Your task to perform on an android device: turn off data saver in the chrome app Image 0: 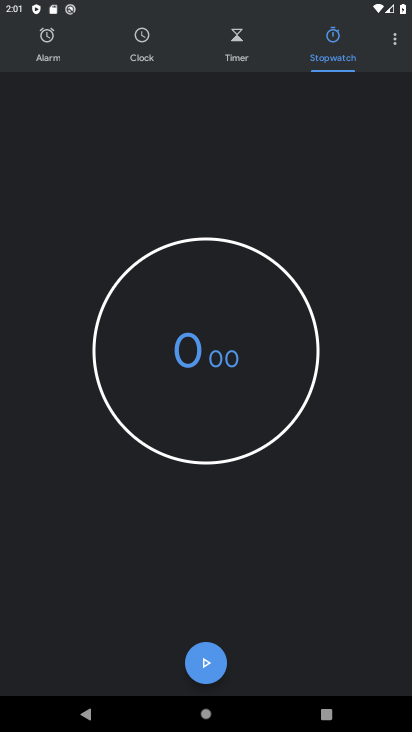
Step 0: press back button
Your task to perform on an android device: turn off data saver in the chrome app Image 1: 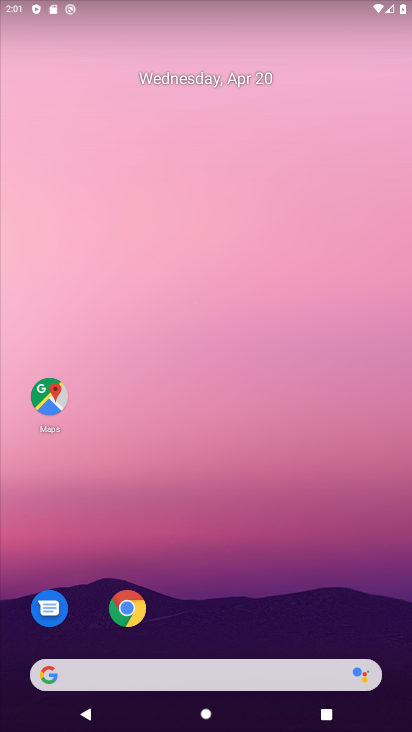
Step 1: press back button
Your task to perform on an android device: turn off data saver in the chrome app Image 2: 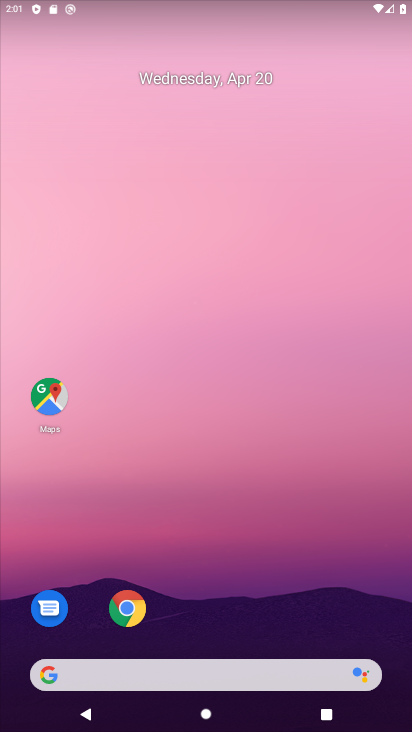
Step 2: click (122, 606)
Your task to perform on an android device: turn off data saver in the chrome app Image 3: 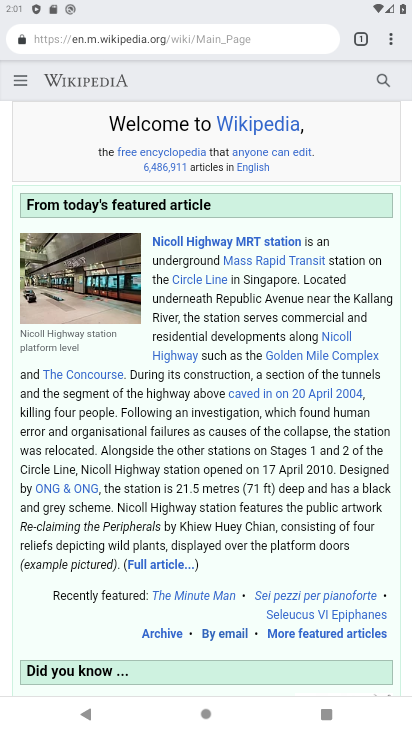
Step 3: click (384, 39)
Your task to perform on an android device: turn off data saver in the chrome app Image 4: 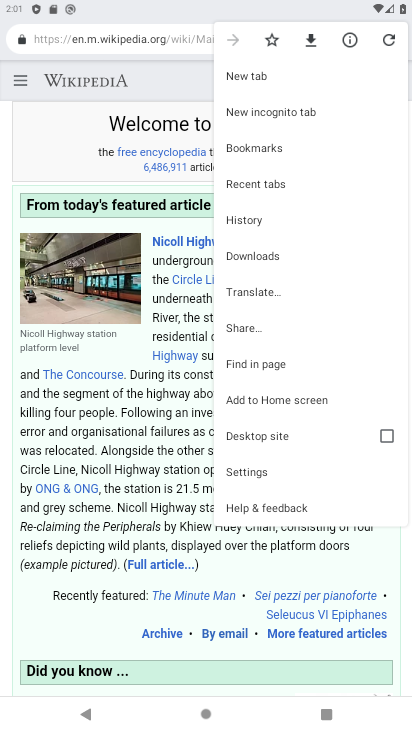
Step 4: click (278, 463)
Your task to perform on an android device: turn off data saver in the chrome app Image 5: 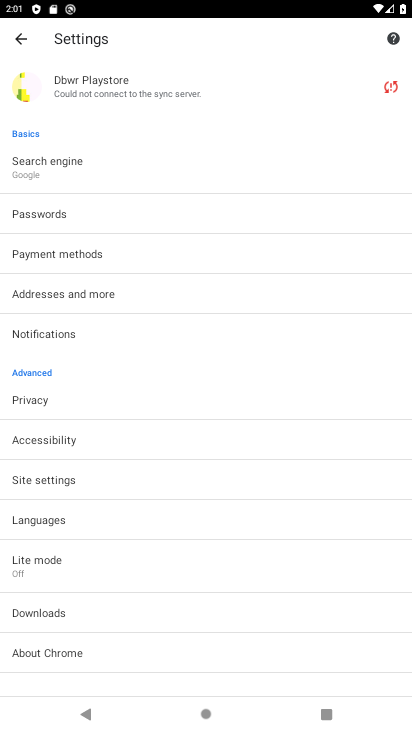
Step 5: click (181, 577)
Your task to perform on an android device: turn off data saver in the chrome app Image 6: 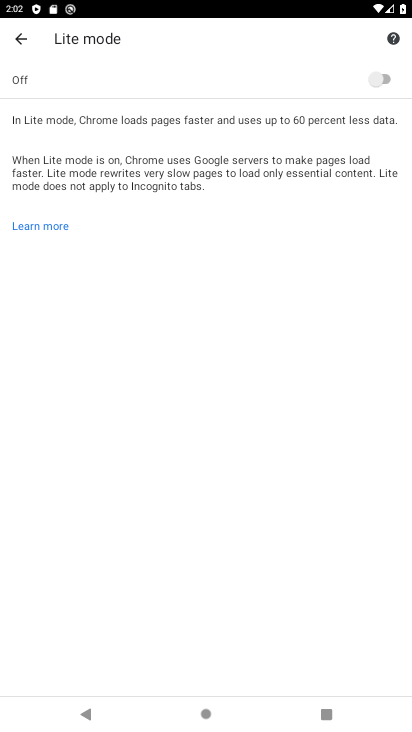
Step 6: task complete